Your task to perform on an android device: Toggle the flashlight Image 0: 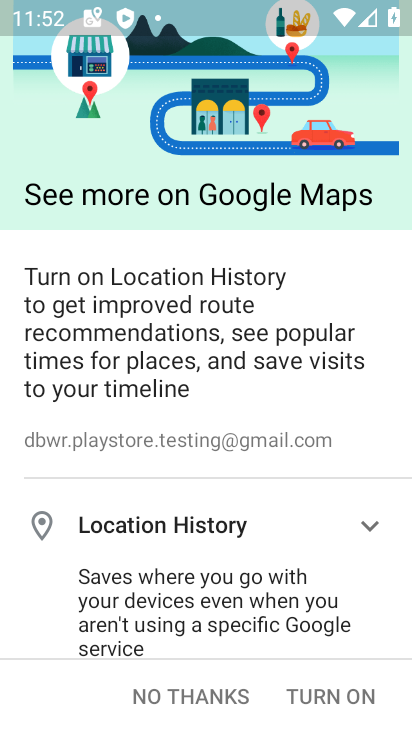
Step 0: click (378, 689)
Your task to perform on an android device: Toggle the flashlight Image 1: 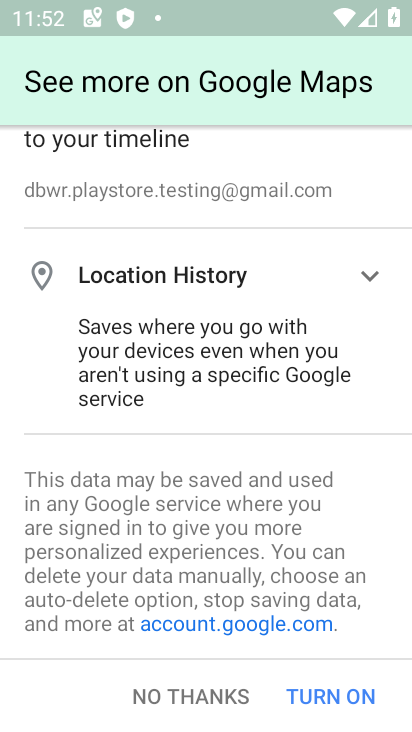
Step 1: press home button
Your task to perform on an android device: Toggle the flashlight Image 2: 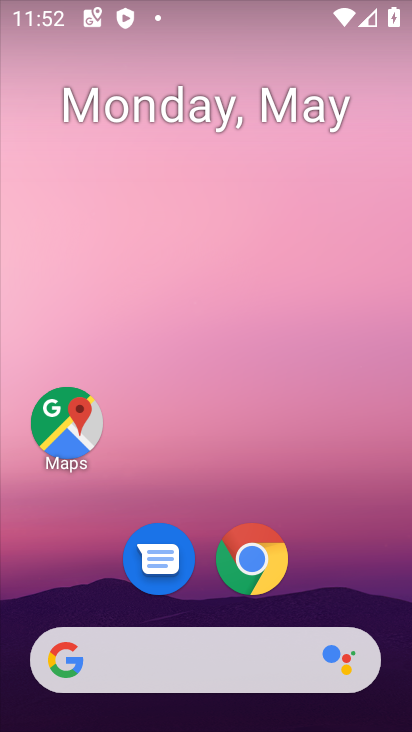
Step 2: drag from (365, 592) to (353, 65)
Your task to perform on an android device: Toggle the flashlight Image 3: 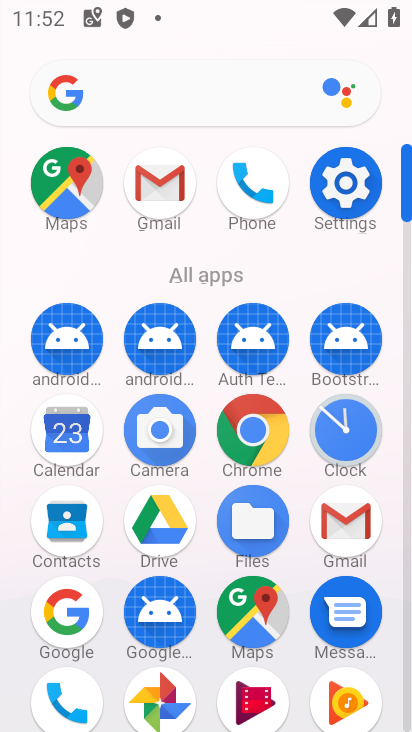
Step 3: click (327, 207)
Your task to perform on an android device: Toggle the flashlight Image 4: 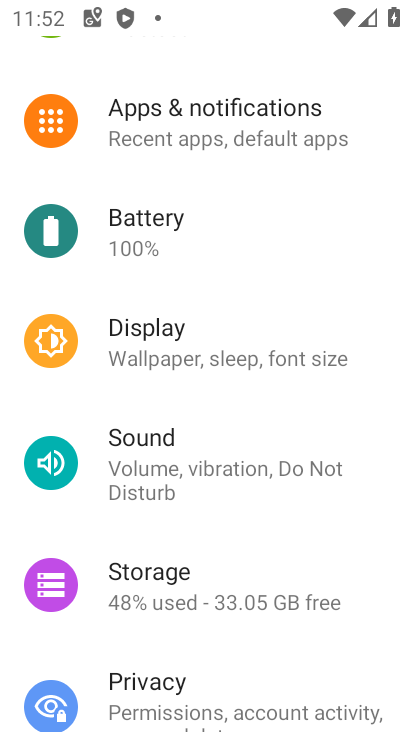
Step 4: task complete